Your task to perform on an android device: Open Yahoo.com Image 0: 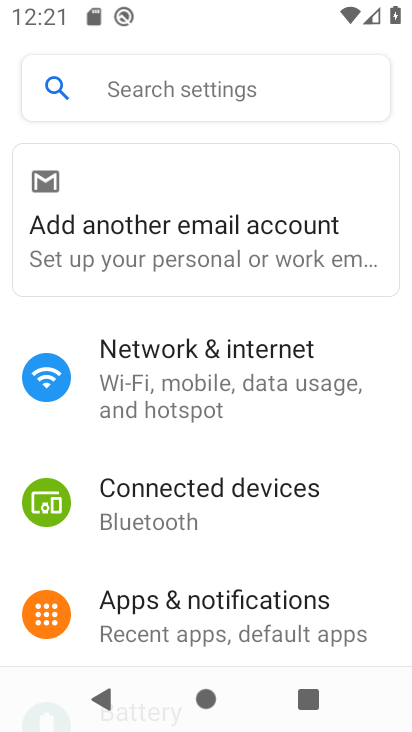
Step 0: drag from (187, 527) to (223, 209)
Your task to perform on an android device: Open Yahoo.com Image 1: 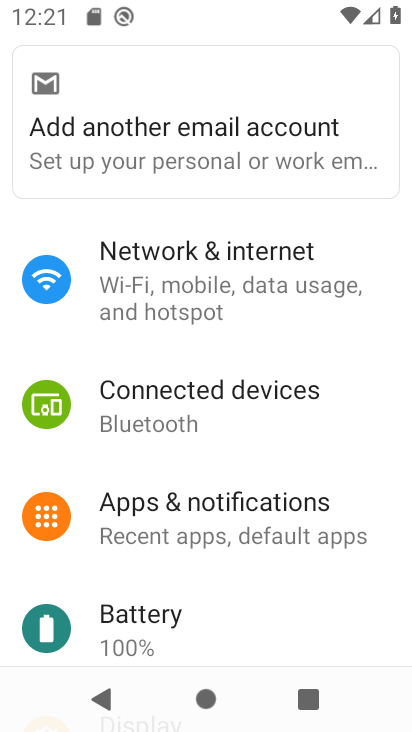
Step 1: press home button
Your task to perform on an android device: Open Yahoo.com Image 2: 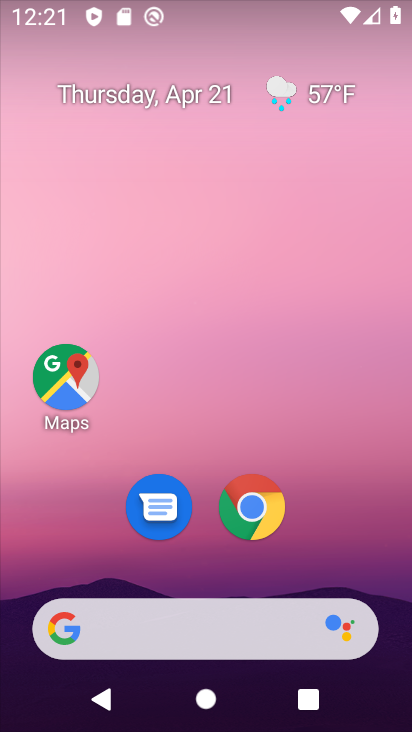
Step 2: click (254, 509)
Your task to perform on an android device: Open Yahoo.com Image 3: 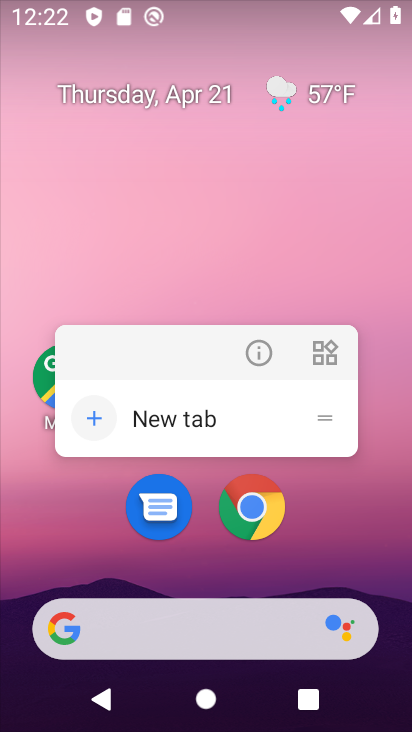
Step 3: click (270, 346)
Your task to perform on an android device: Open Yahoo.com Image 4: 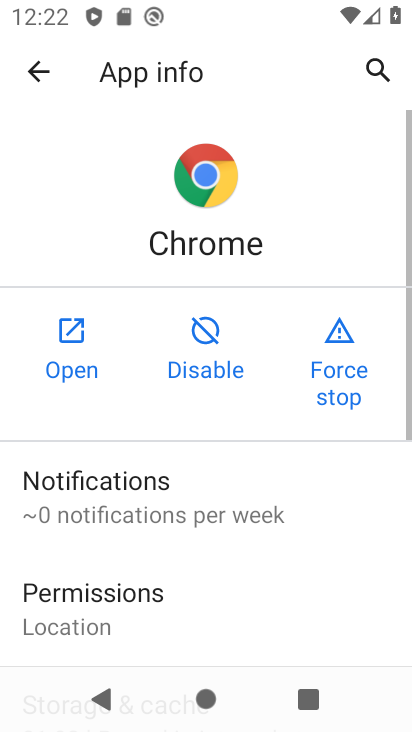
Step 4: click (108, 337)
Your task to perform on an android device: Open Yahoo.com Image 5: 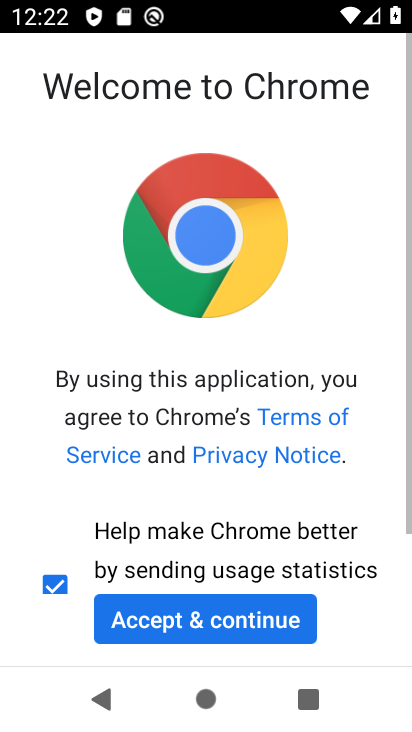
Step 5: drag from (178, 564) to (275, 186)
Your task to perform on an android device: Open Yahoo.com Image 6: 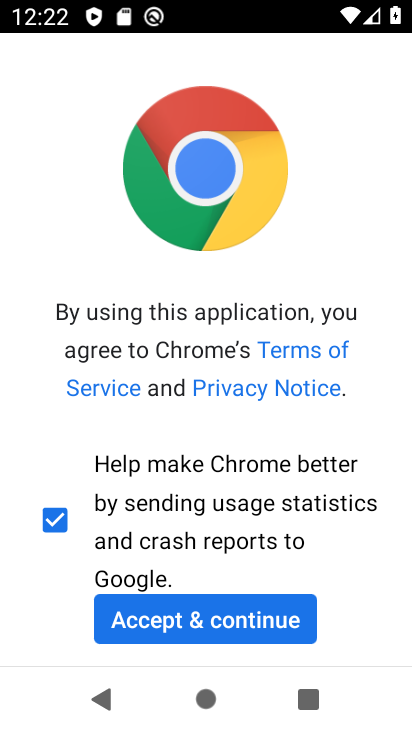
Step 6: click (181, 613)
Your task to perform on an android device: Open Yahoo.com Image 7: 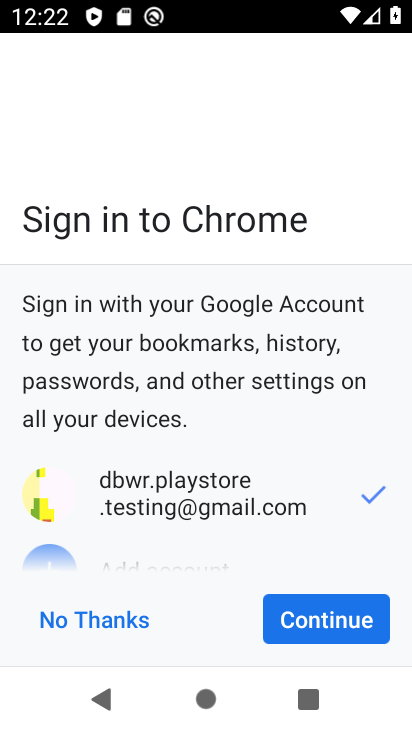
Step 7: click (330, 612)
Your task to perform on an android device: Open Yahoo.com Image 8: 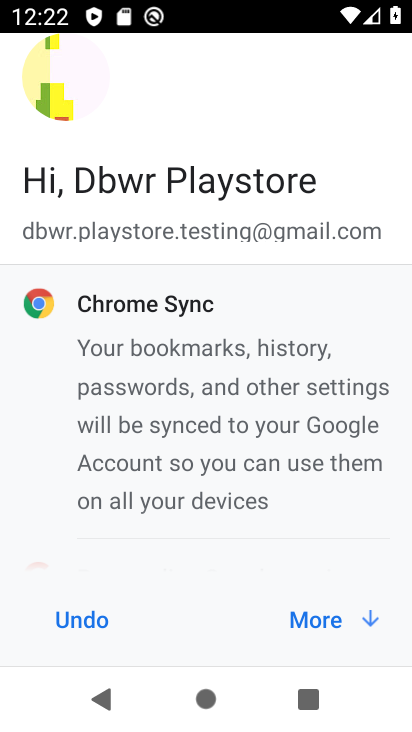
Step 8: click (310, 628)
Your task to perform on an android device: Open Yahoo.com Image 9: 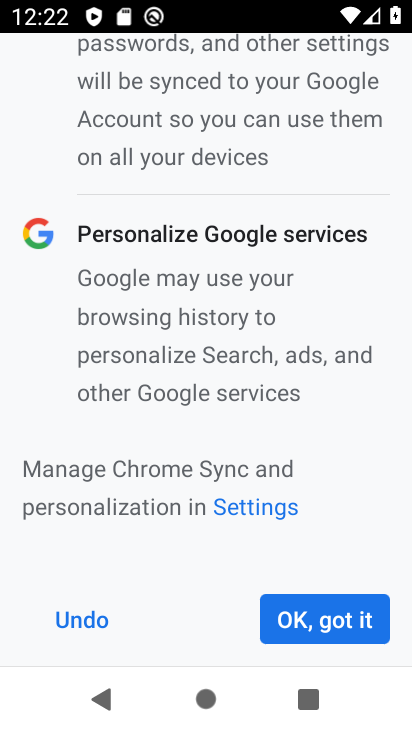
Step 9: click (309, 629)
Your task to perform on an android device: Open Yahoo.com Image 10: 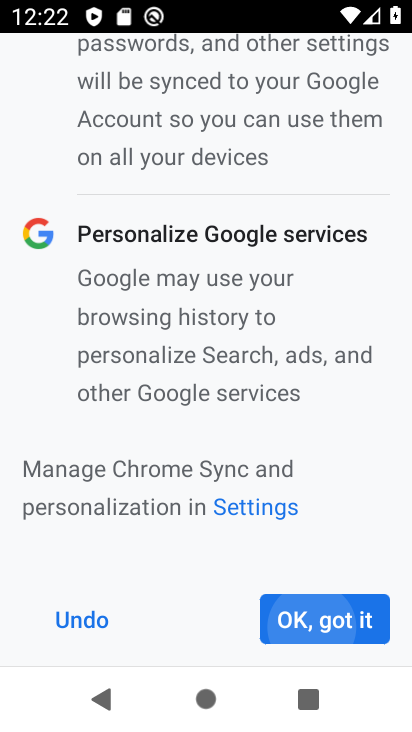
Step 10: click (313, 627)
Your task to perform on an android device: Open Yahoo.com Image 11: 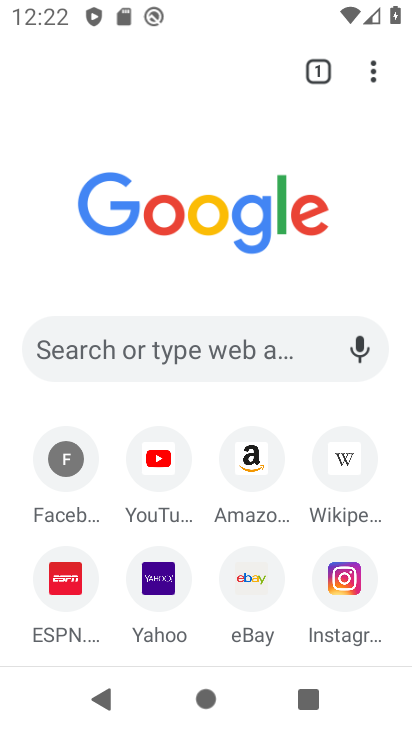
Step 11: click (150, 579)
Your task to perform on an android device: Open Yahoo.com Image 12: 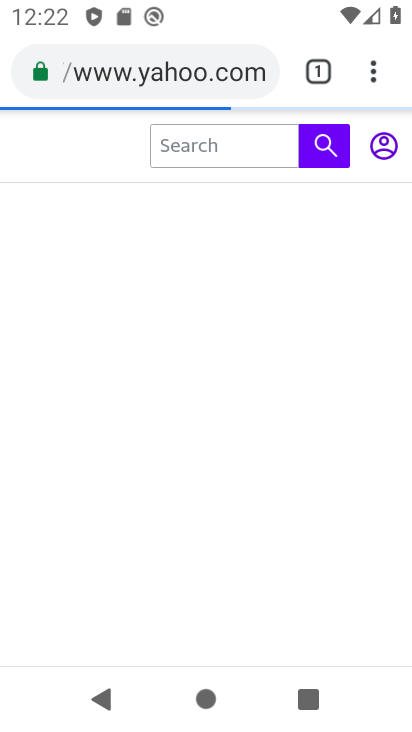
Step 12: task complete